Your task to perform on an android device: toggle javascript in the chrome app Image 0: 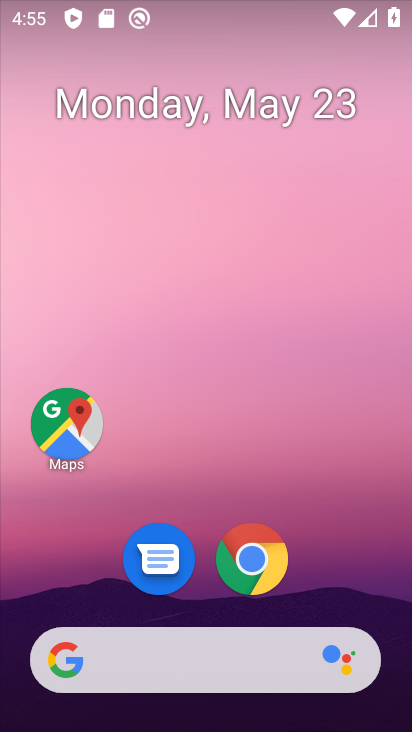
Step 0: drag from (224, 642) to (282, 12)
Your task to perform on an android device: toggle javascript in the chrome app Image 1: 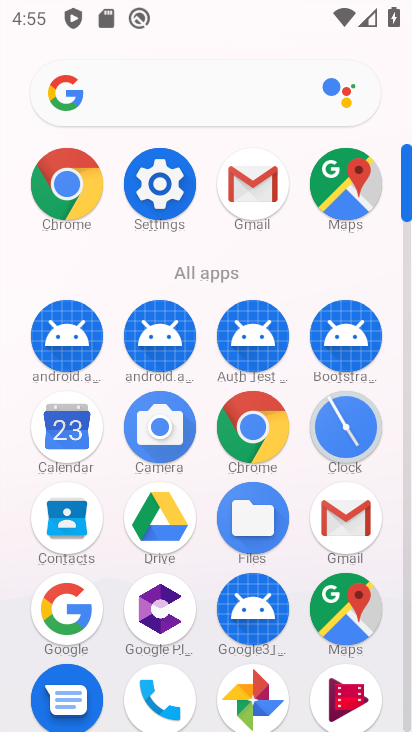
Step 1: click (253, 443)
Your task to perform on an android device: toggle javascript in the chrome app Image 2: 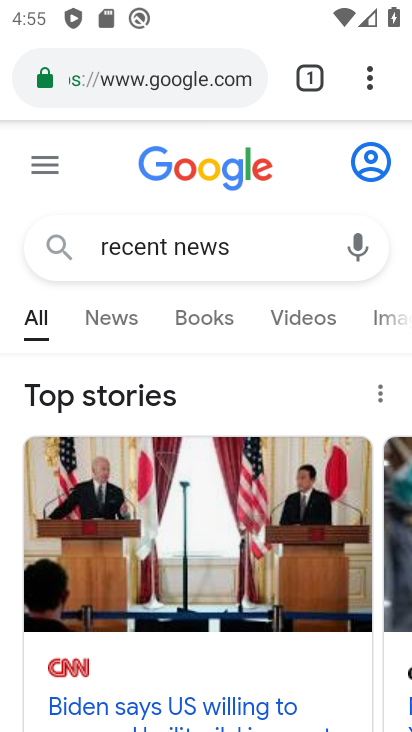
Step 2: drag from (366, 64) to (146, 627)
Your task to perform on an android device: toggle javascript in the chrome app Image 3: 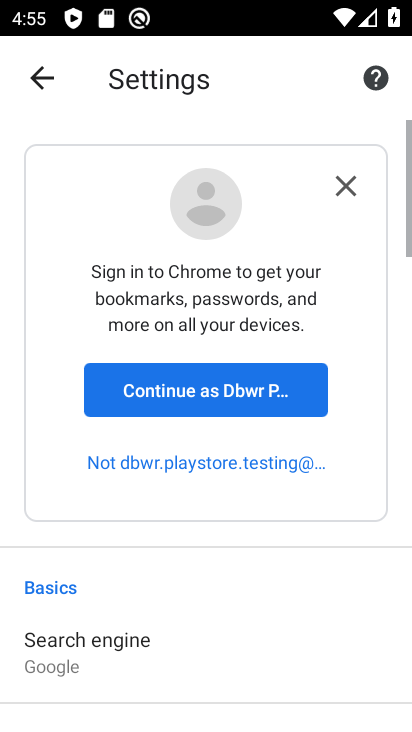
Step 3: drag from (252, 610) to (318, 4)
Your task to perform on an android device: toggle javascript in the chrome app Image 4: 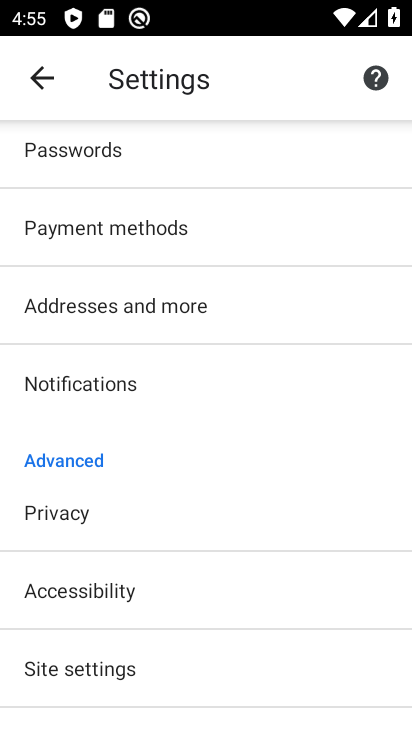
Step 4: drag from (191, 654) to (244, 65)
Your task to perform on an android device: toggle javascript in the chrome app Image 5: 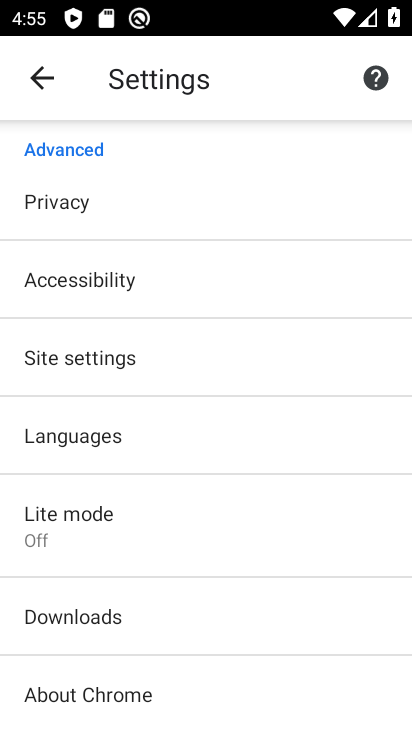
Step 5: click (135, 374)
Your task to perform on an android device: toggle javascript in the chrome app Image 6: 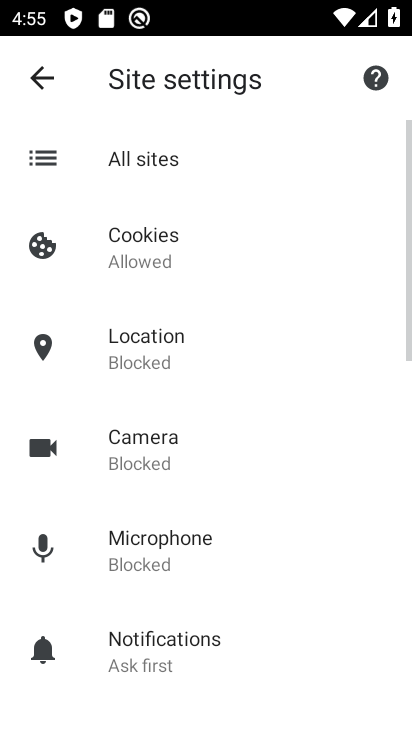
Step 6: drag from (267, 528) to (270, 33)
Your task to perform on an android device: toggle javascript in the chrome app Image 7: 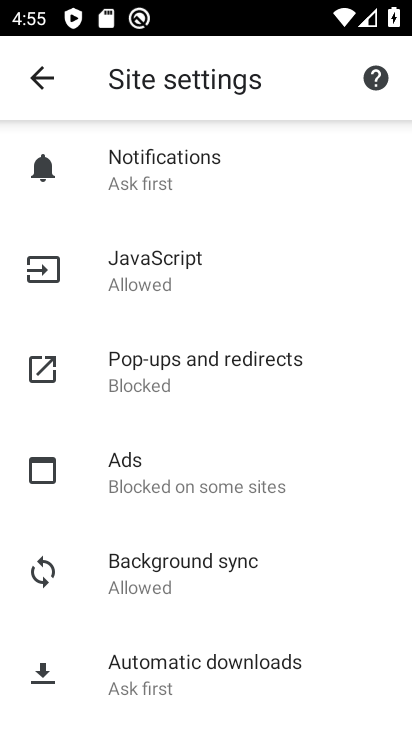
Step 7: click (174, 265)
Your task to perform on an android device: toggle javascript in the chrome app Image 8: 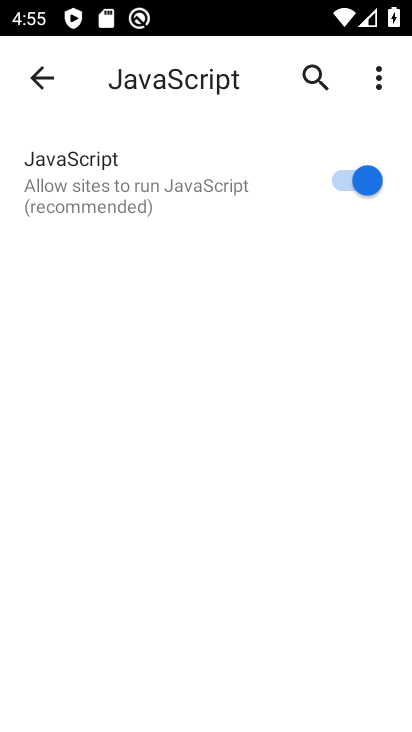
Step 8: click (343, 186)
Your task to perform on an android device: toggle javascript in the chrome app Image 9: 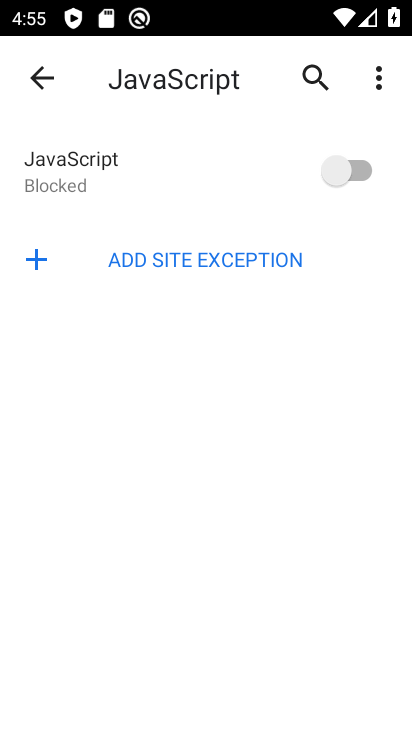
Step 9: task complete